Your task to perform on an android device: toggle show notifications on the lock screen Image 0: 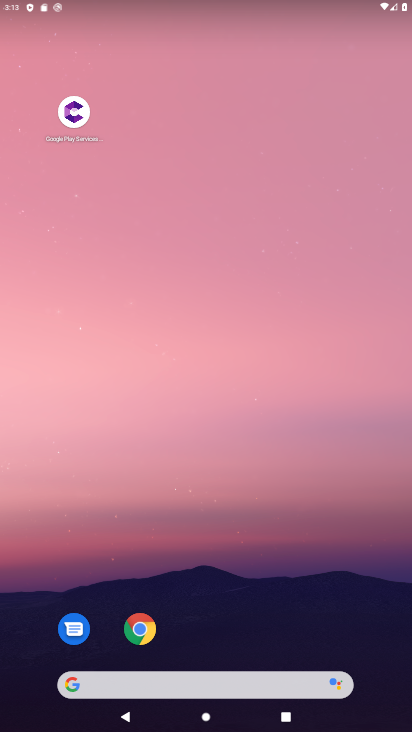
Step 0: drag from (301, 635) to (208, 174)
Your task to perform on an android device: toggle show notifications on the lock screen Image 1: 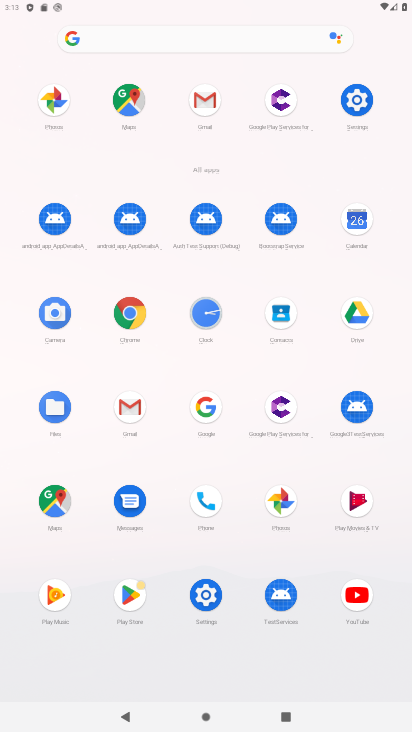
Step 1: click (197, 600)
Your task to perform on an android device: toggle show notifications on the lock screen Image 2: 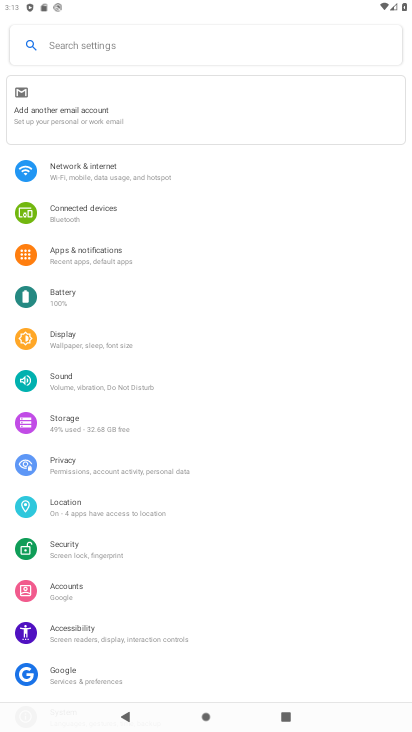
Step 2: click (93, 257)
Your task to perform on an android device: toggle show notifications on the lock screen Image 3: 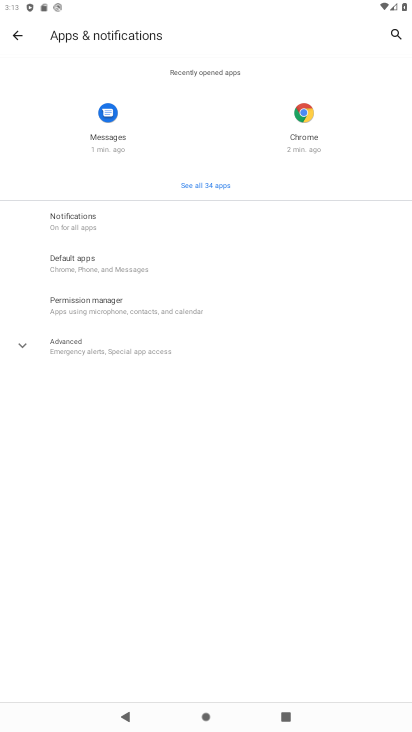
Step 3: click (72, 221)
Your task to perform on an android device: toggle show notifications on the lock screen Image 4: 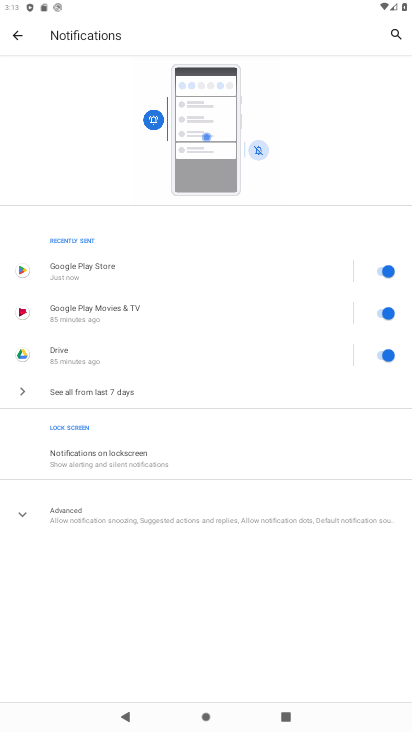
Step 4: click (171, 460)
Your task to perform on an android device: toggle show notifications on the lock screen Image 5: 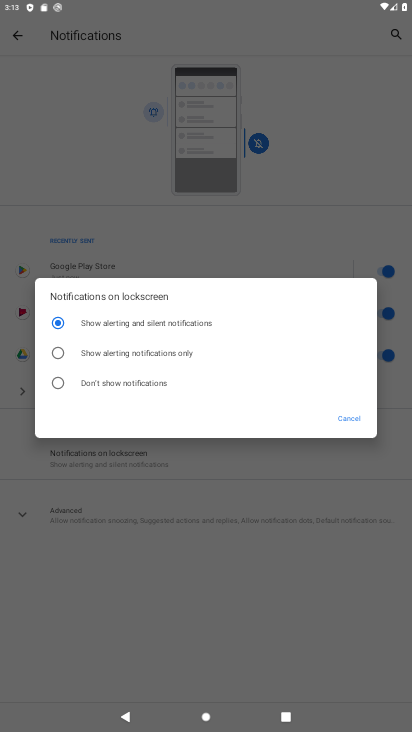
Step 5: click (134, 387)
Your task to perform on an android device: toggle show notifications on the lock screen Image 6: 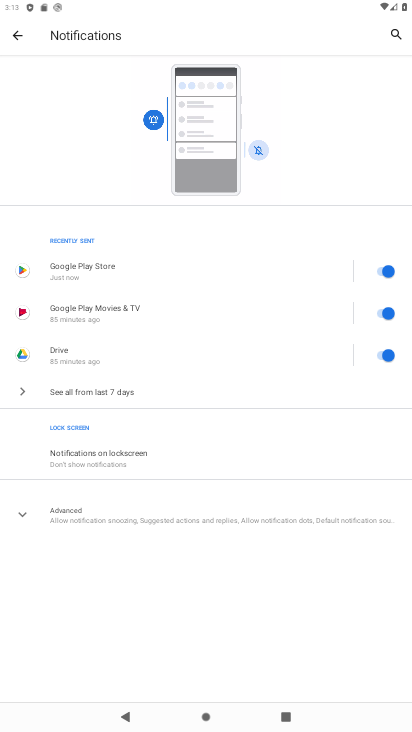
Step 6: task complete